Your task to perform on an android device: add a label to a message in the gmail app Image 0: 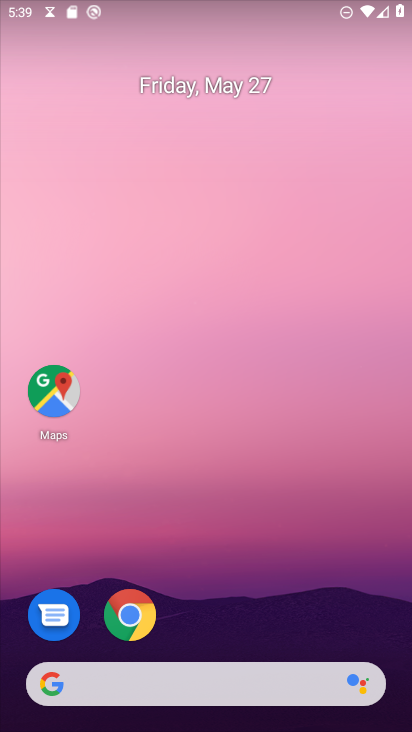
Step 0: drag from (275, 600) to (203, 68)
Your task to perform on an android device: add a label to a message in the gmail app Image 1: 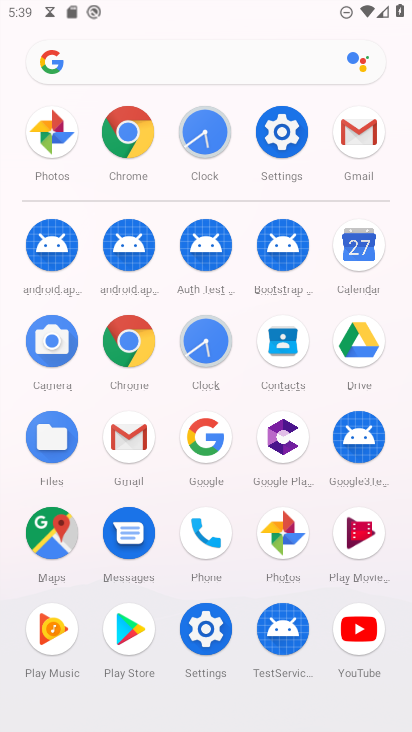
Step 1: click (137, 438)
Your task to perform on an android device: add a label to a message in the gmail app Image 2: 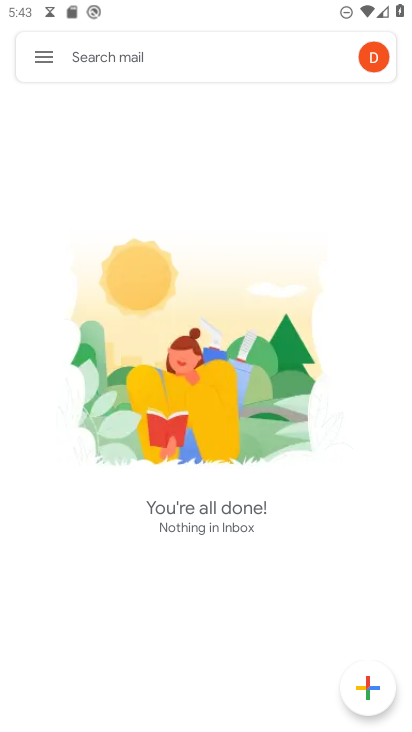
Step 2: task complete